Your task to perform on an android device: move an email to a new category in the gmail app Image 0: 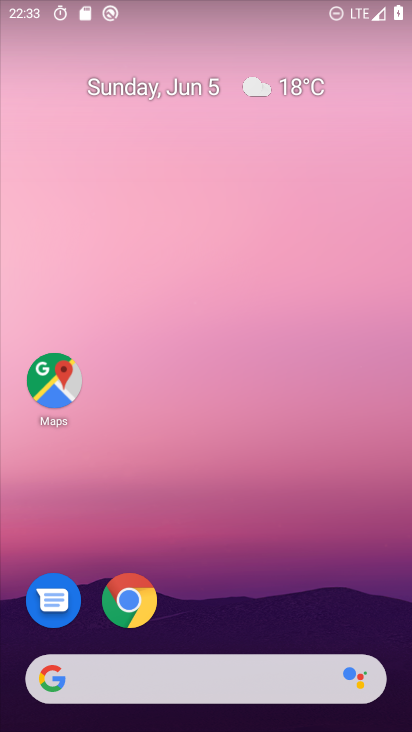
Step 0: drag from (353, 601) to (304, 255)
Your task to perform on an android device: move an email to a new category in the gmail app Image 1: 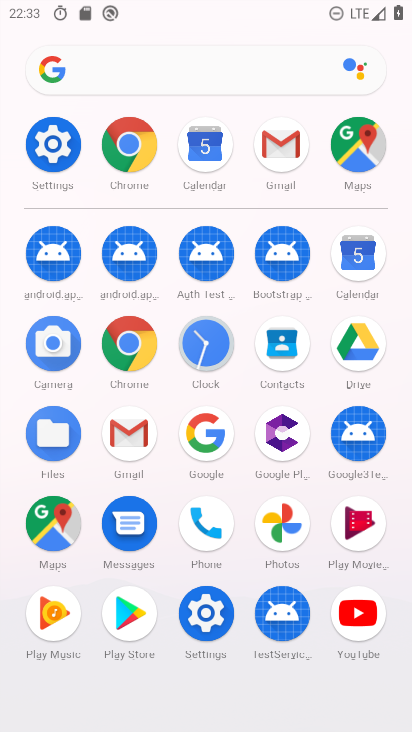
Step 1: click (279, 140)
Your task to perform on an android device: move an email to a new category in the gmail app Image 2: 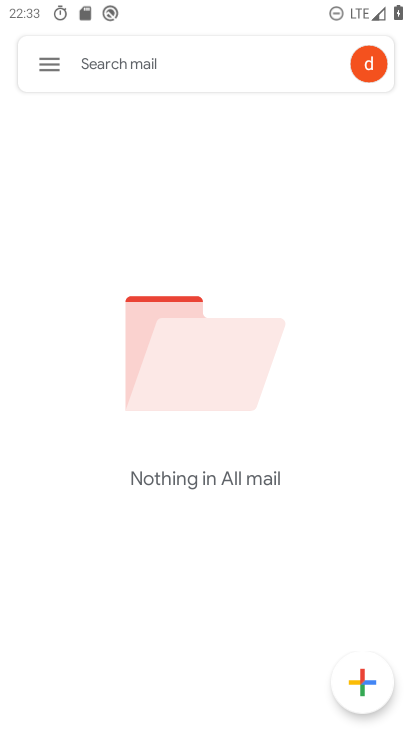
Step 2: click (45, 65)
Your task to perform on an android device: move an email to a new category in the gmail app Image 3: 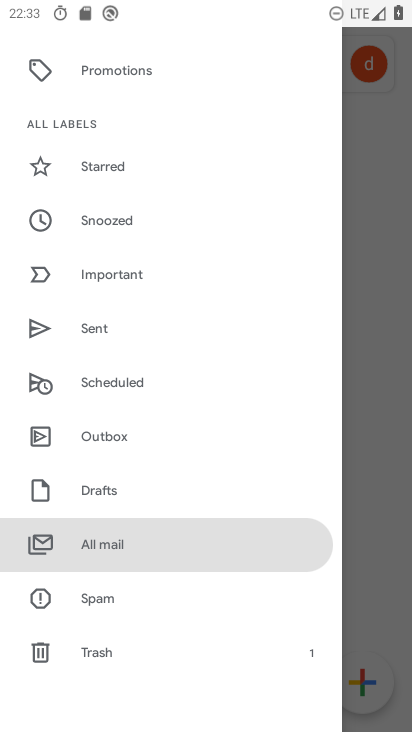
Step 3: click (392, 434)
Your task to perform on an android device: move an email to a new category in the gmail app Image 4: 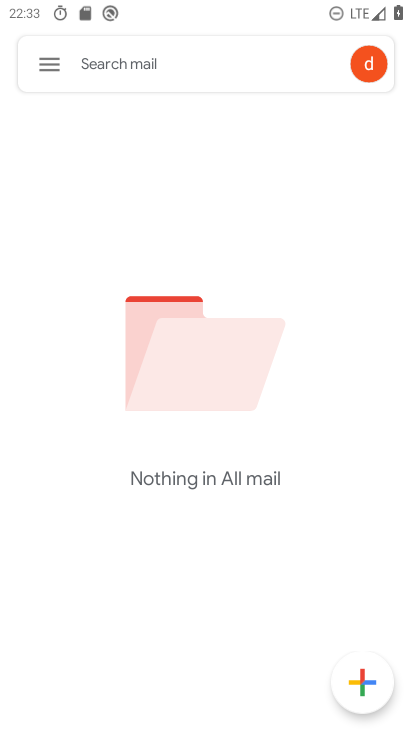
Step 4: task complete